Your task to perform on an android device: Open display settings Image 0: 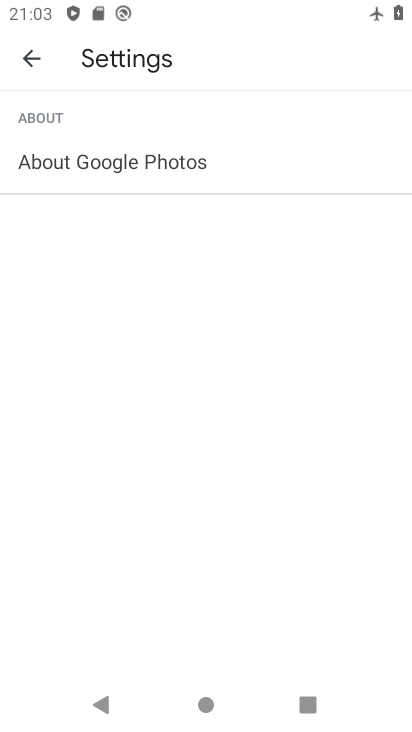
Step 0: press home button
Your task to perform on an android device: Open display settings Image 1: 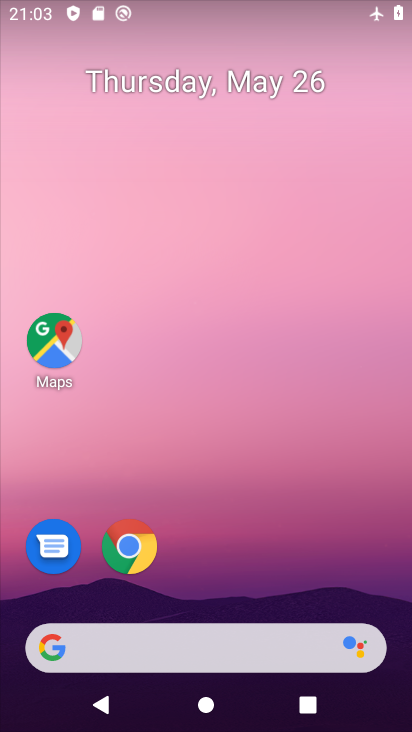
Step 1: drag from (271, 582) to (218, 241)
Your task to perform on an android device: Open display settings Image 2: 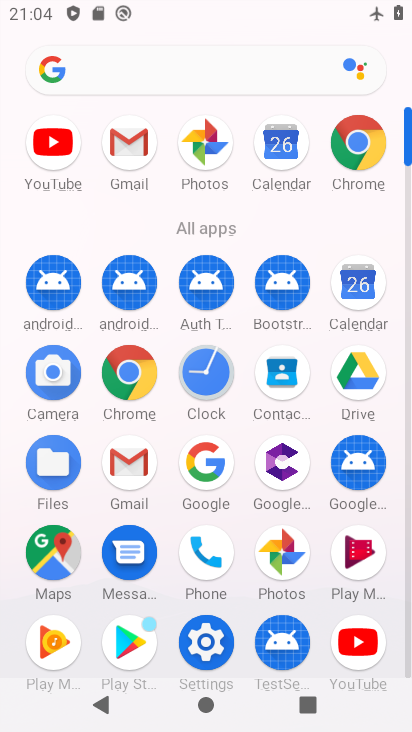
Step 2: click (210, 633)
Your task to perform on an android device: Open display settings Image 3: 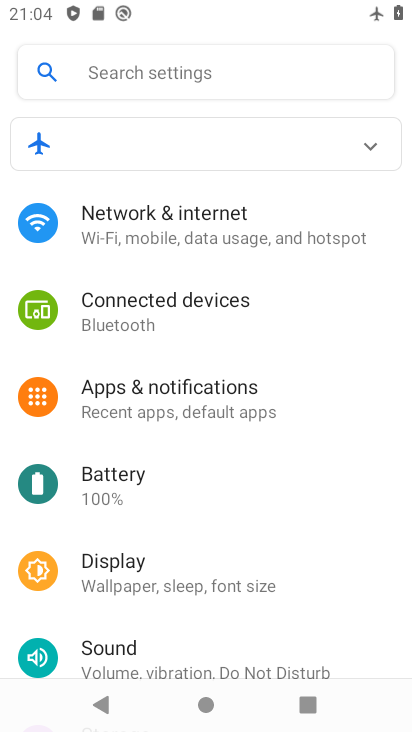
Step 3: click (267, 574)
Your task to perform on an android device: Open display settings Image 4: 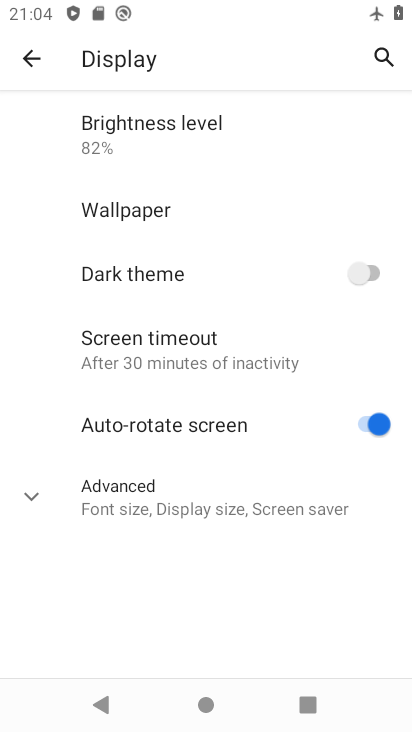
Step 4: task complete